Your task to perform on an android device: change notification settings in the gmail app Image 0: 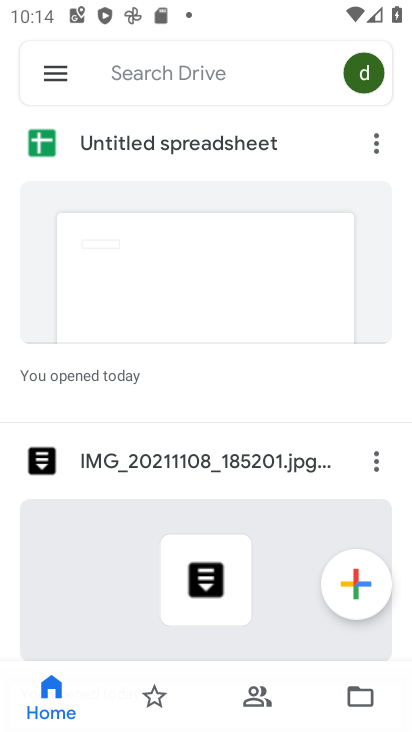
Step 0: drag from (241, 484) to (254, 228)
Your task to perform on an android device: change notification settings in the gmail app Image 1: 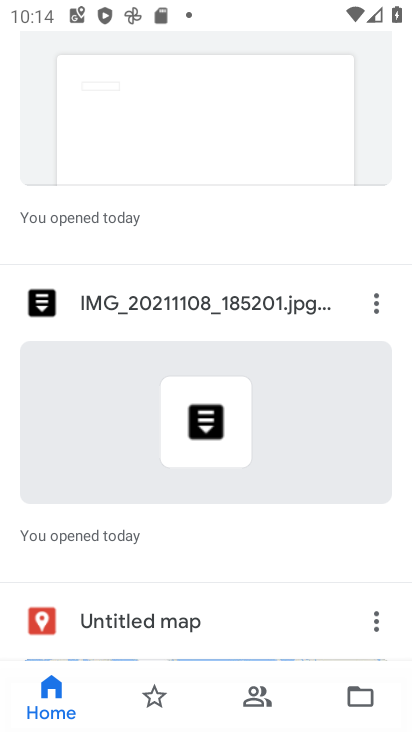
Step 1: drag from (250, 253) to (395, 565)
Your task to perform on an android device: change notification settings in the gmail app Image 2: 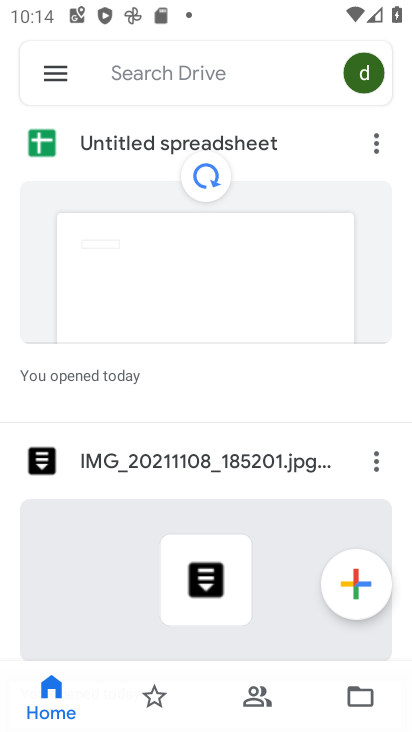
Step 2: press home button
Your task to perform on an android device: change notification settings in the gmail app Image 3: 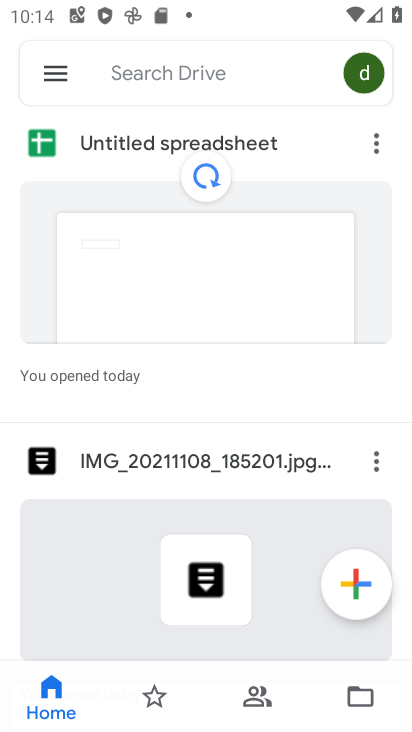
Step 3: drag from (395, 565) to (402, 503)
Your task to perform on an android device: change notification settings in the gmail app Image 4: 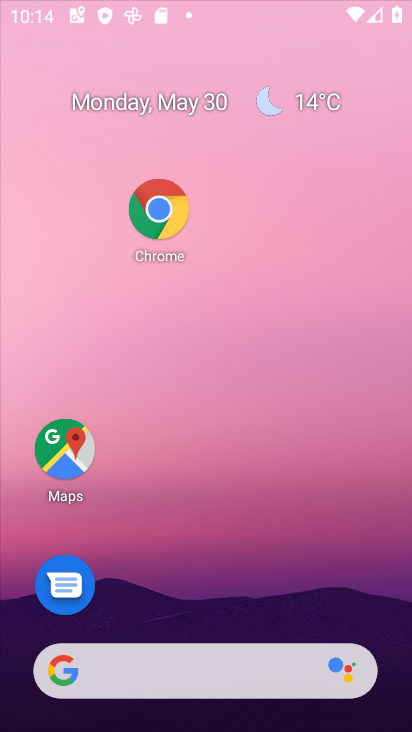
Step 4: drag from (317, 532) to (371, 130)
Your task to perform on an android device: change notification settings in the gmail app Image 5: 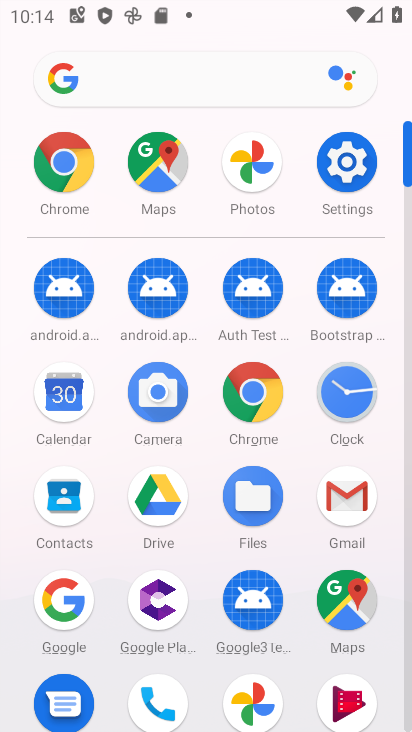
Step 5: click (343, 492)
Your task to perform on an android device: change notification settings in the gmail app Image 6: 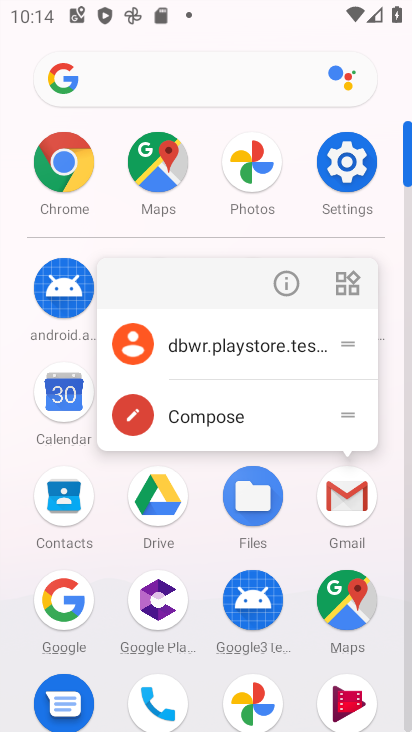
Step 6: click (281, 288)
Your task to perform on an android device: change notification settings in the gmail app Image 7: 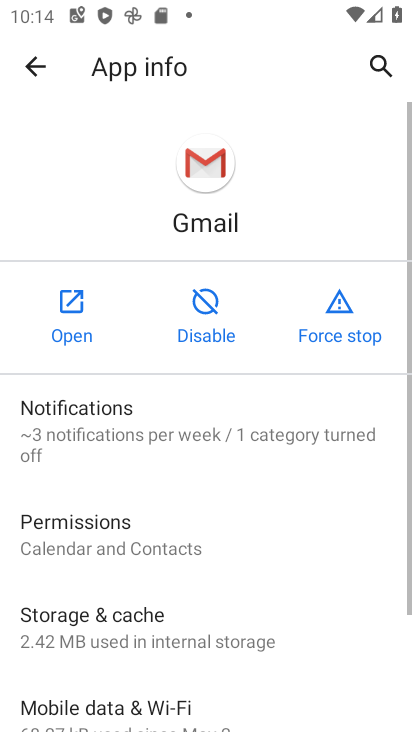
Step 7: click (82, 295)
Your task to perform on an android device: change notification settings in the gmail app Image 8: 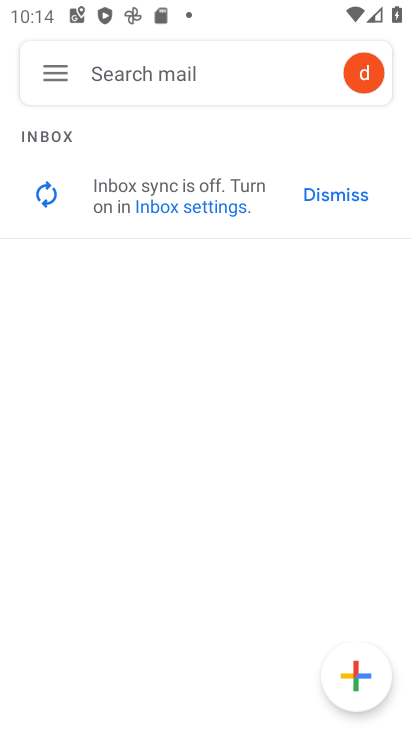
Step 8: click (57, 76)
Your task to perform on an android device: change notification settings in the gmail app Image 9: 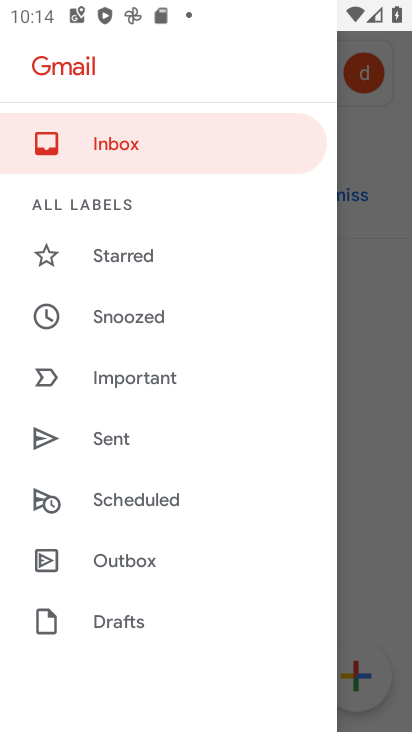
Step 9: drag from (146, 503) to (195, 0)
Your task to perform on an android device: change notification settings in the gmail app Image 10: 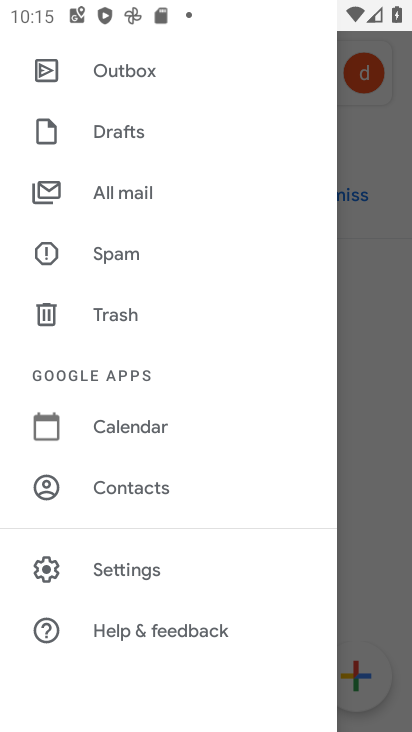
Step 10: click (134, 569)
Your task to perform on an android device: change notification settings in the gmail app Image 11: 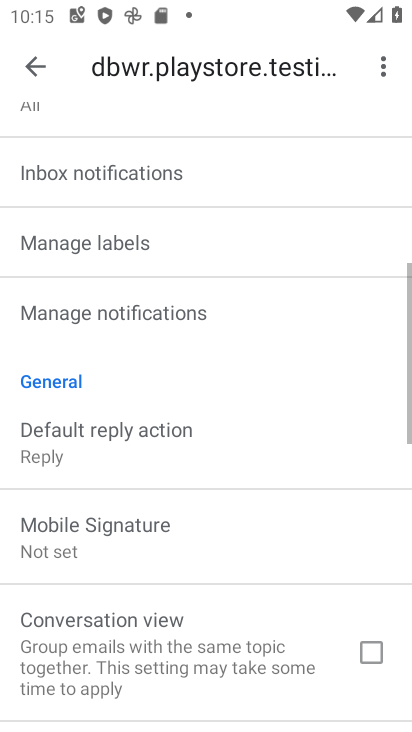
Step 11: click (175, 296)
Your task to perform on an android device: change notification settings in the gmail app Image 12: 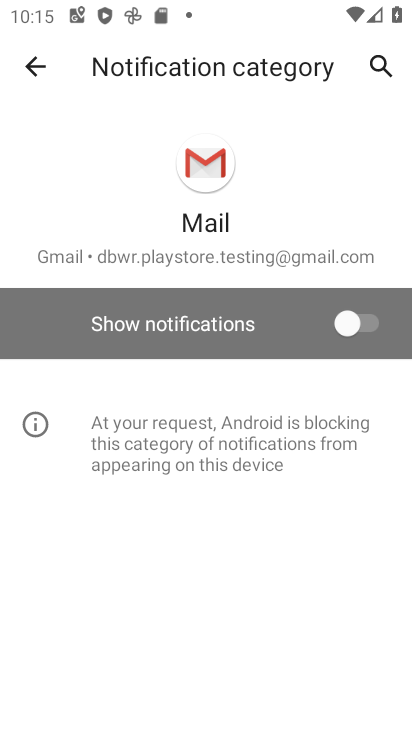
Step 12: click (309, 327)
Your task to perform on an android device: change notification settings in the gmail app Image 13: 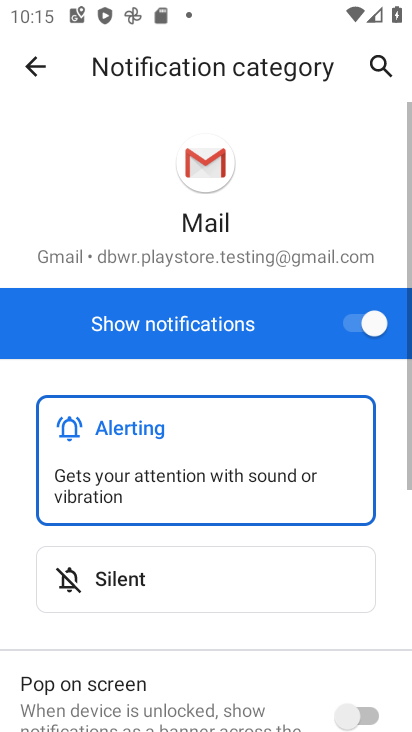
Step 13: task complete